Your task to perform on an android device: Open the contacts app Image 0: 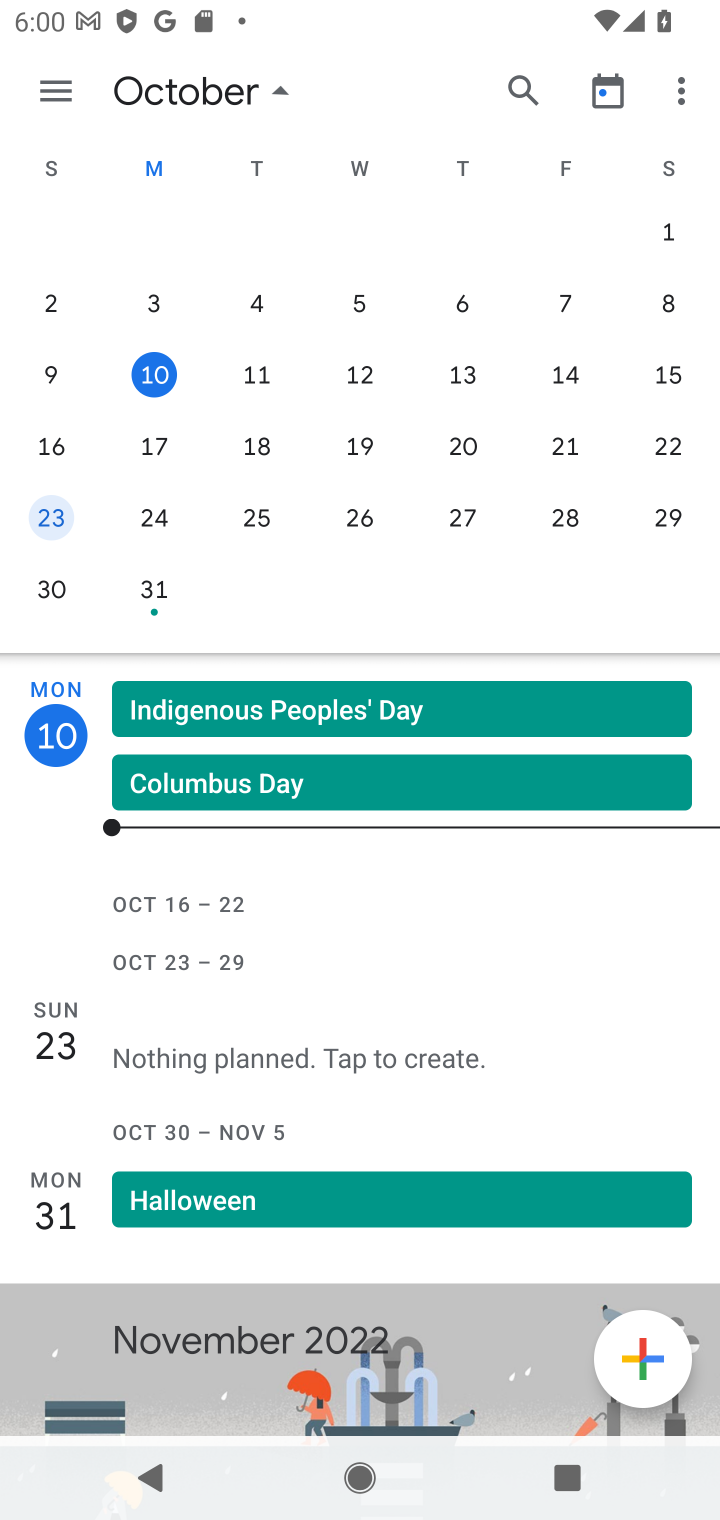
Step 0: press home button
Your task to perform on an android device: Open the contacts app Image 1: 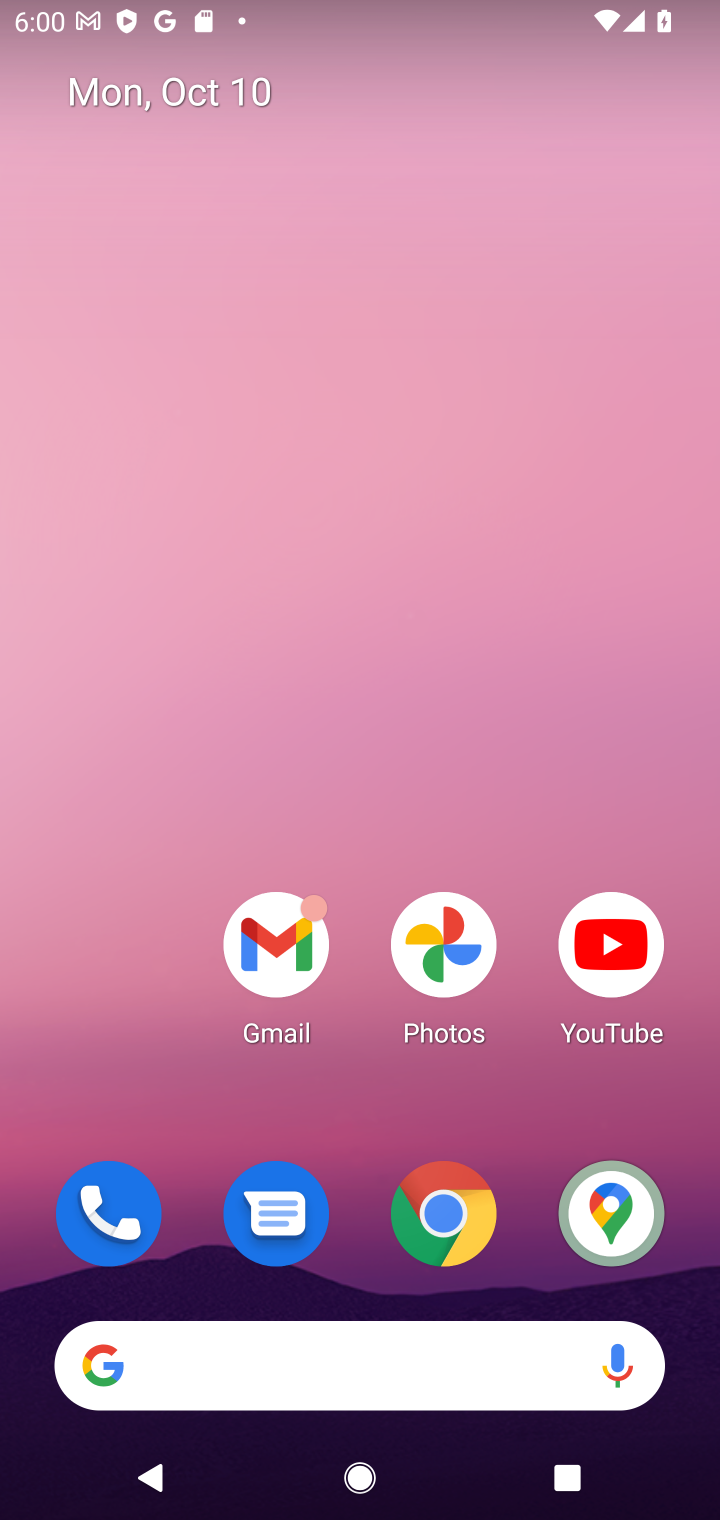
Step 1: drag from (392, 413) to (415, 108)
Your task to perform on an android device: Open the contacts app Image 2: 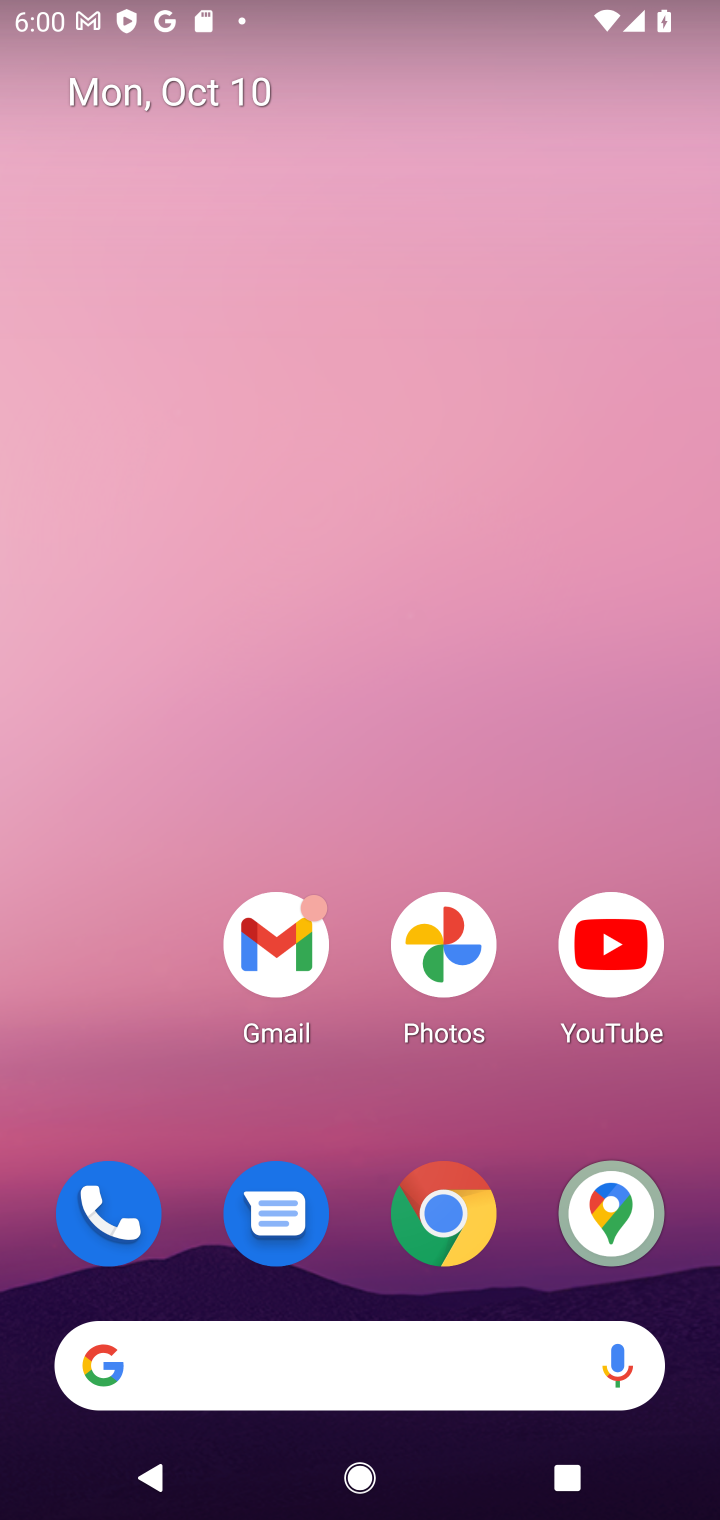
Step 2: drag from (333, 1118) to (343, 262)
Your task to perform on an android device: Open the contacts app Image 3: 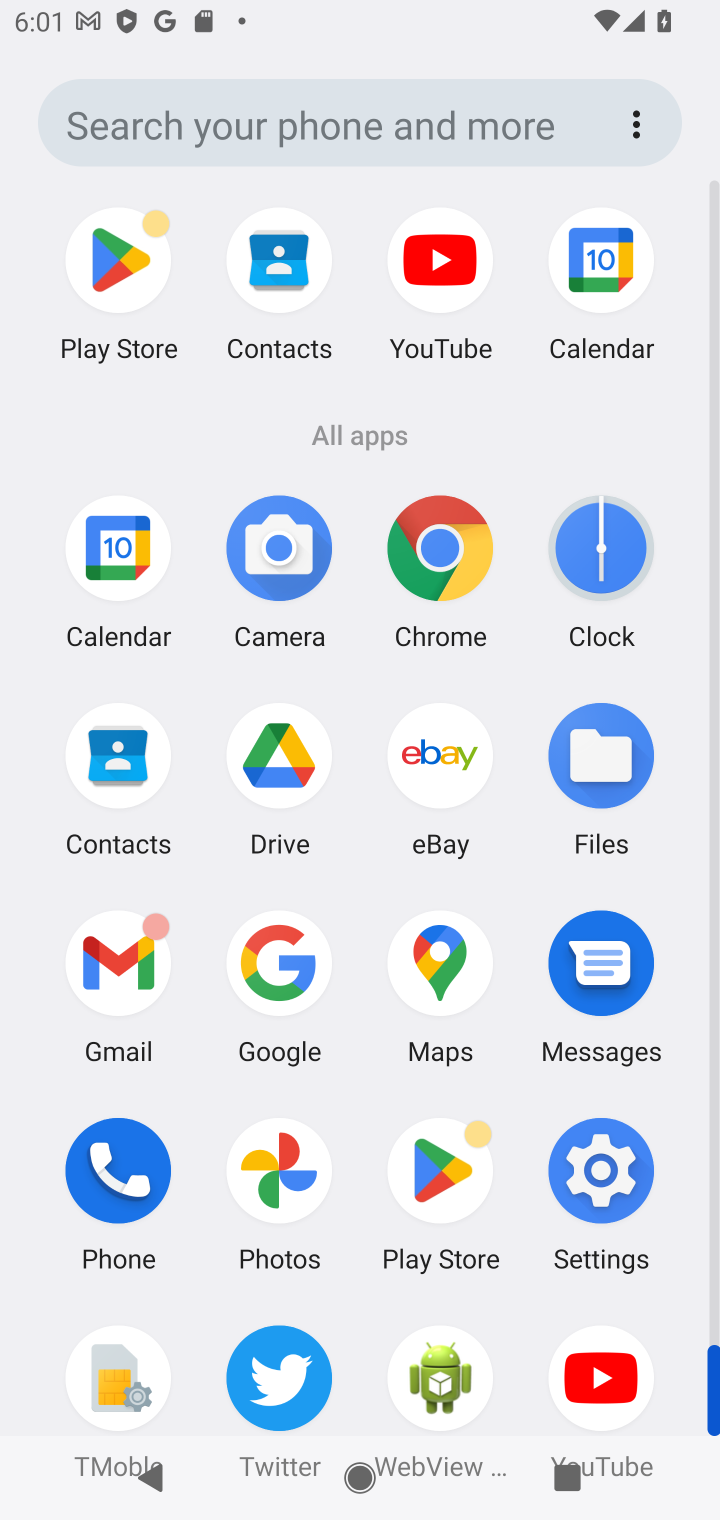
Step 3: click (132, 773)
Your task to perform on an android device: Open the contacts app Image 4: 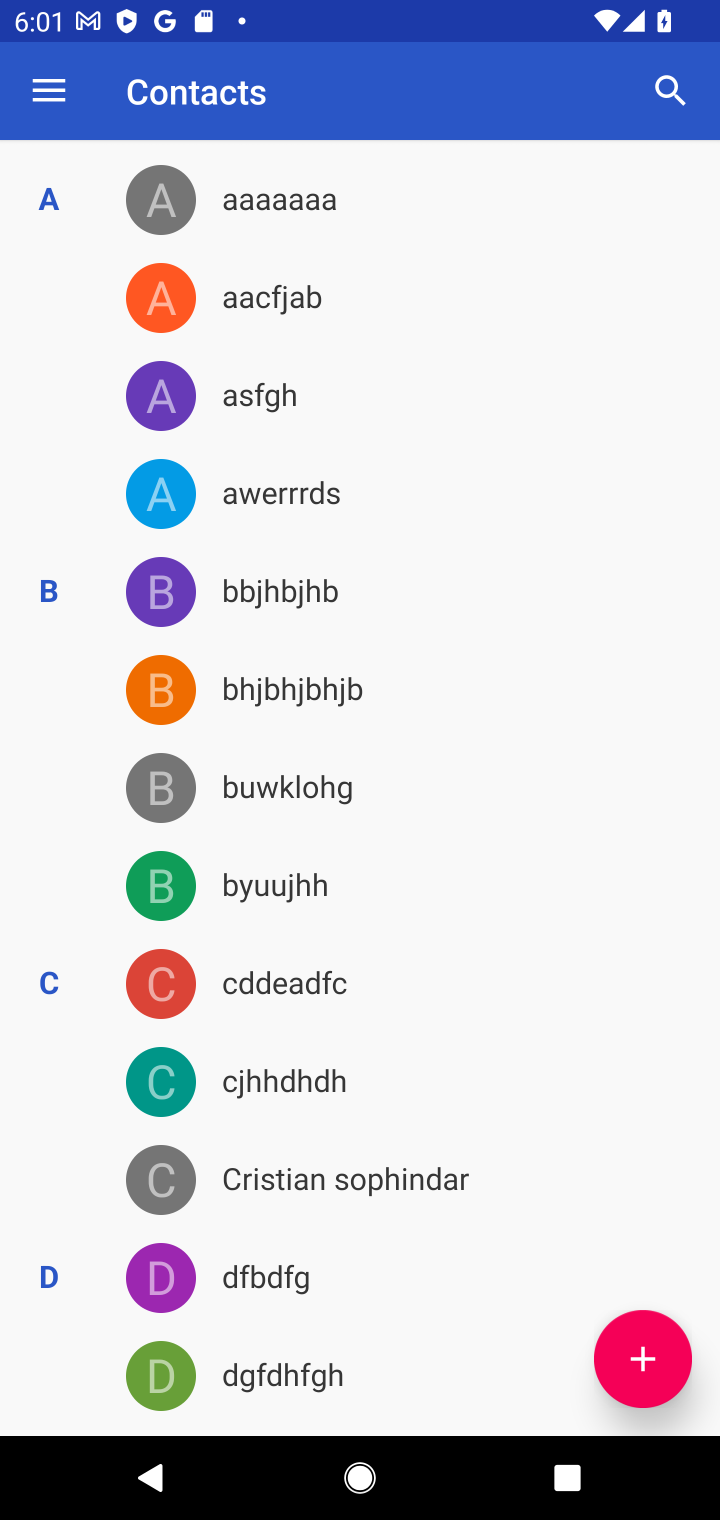
Step 4: task complete